Your task to perform on an android device: turn off priority inbox in the gmail app Image 0: 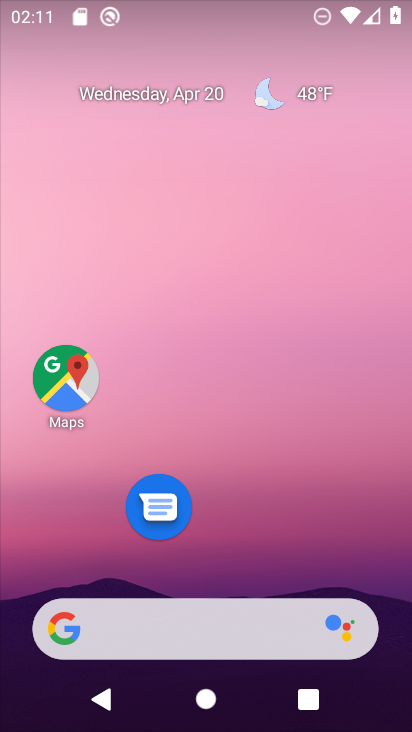
Step 0: drag from (205, 725) to (152, 129)
Your task to perform on an android device: turn off priority inbox in the gmail app Image 1: 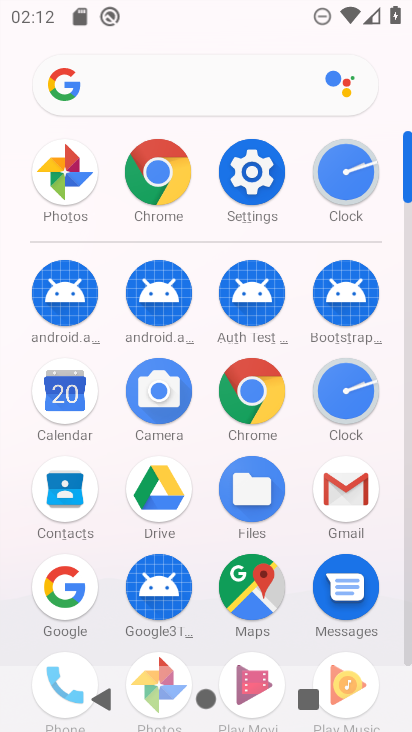
Step 1: click (347, 490)
Your task to perform on an android device: turn off priority inbox in the gmail app Image 2: 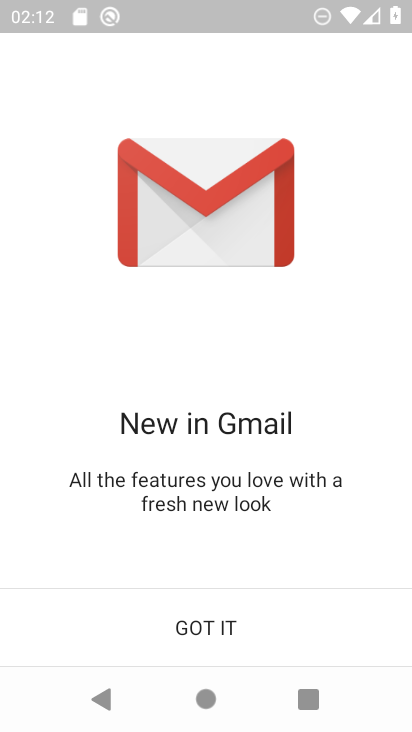
Step 2: click (189, 618)
Your task to perform on an android device: turn off priority inbox in the gmail app Image 3: 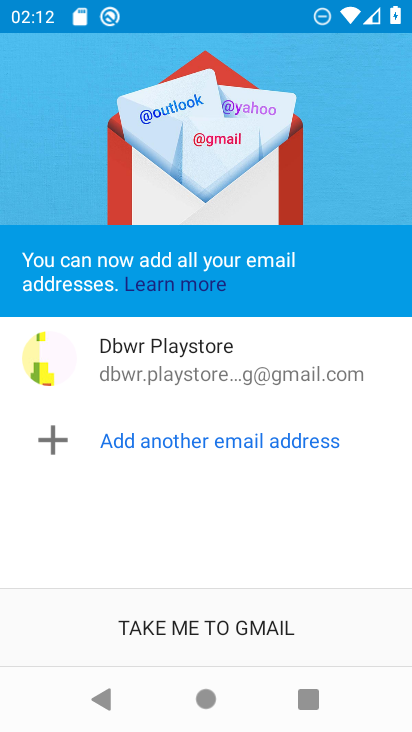
Step 3: click (200, 623)
Your task to perform on an android device: turn off priority inbox in the gmail app Image 4: 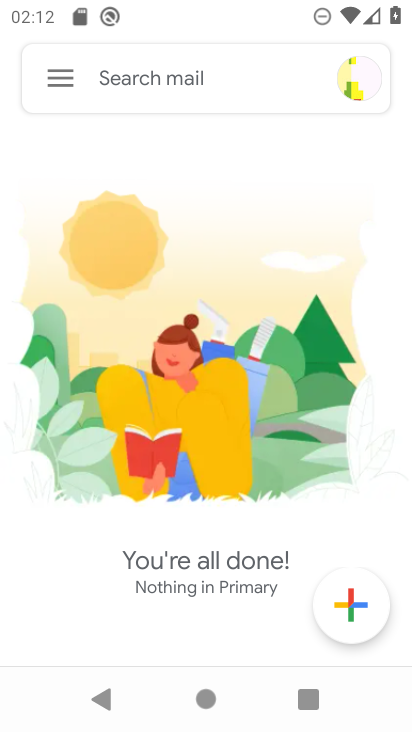
Step 4: click (60, 75)
Your task to perform on an android device: turn off priority inbox in the gmail app Image 5: 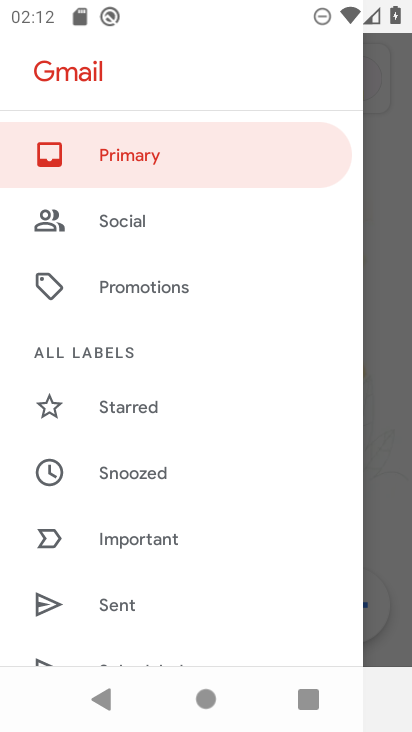
Step 5: drag from (165, 642) to (167, 194)
Your task to perform on an android device: turn off priority inbox in the gmail app Image 6: 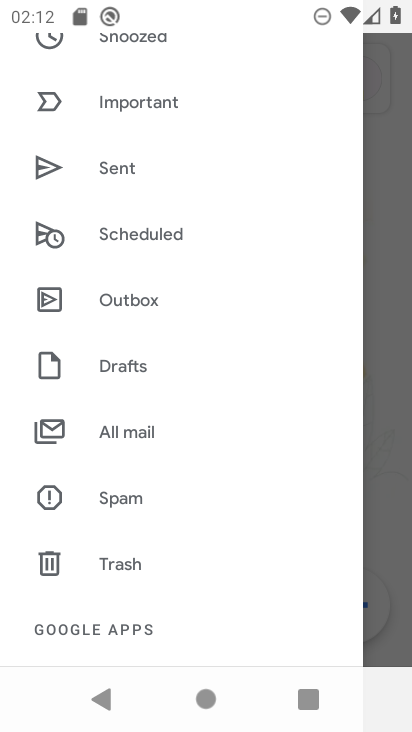
Step 6: drag from (148, 619) to (153, 183)
Your task to perform on an android device: turn off priority inbox in the gmail app Image 7: 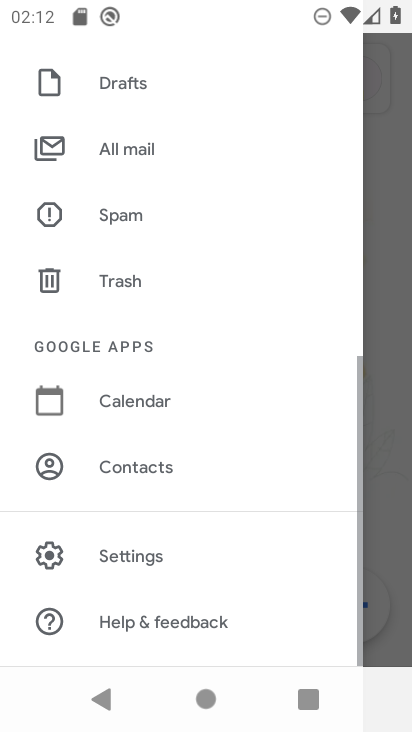
Step 7: click (140, 557)
Your task to perform on an android device: turn off priority inbox in the gmail app Image 8: 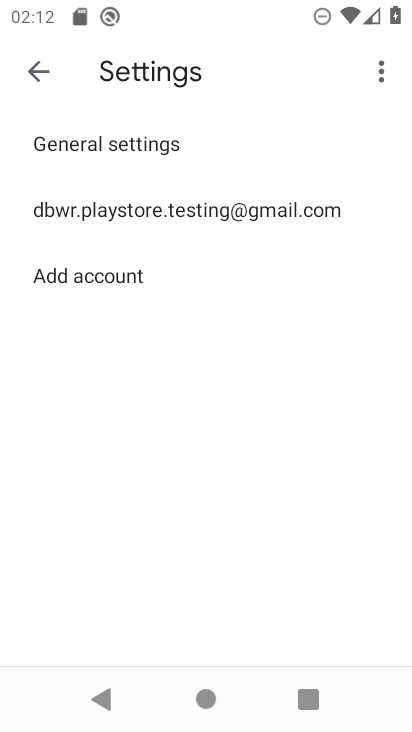
Step 8: click (183, 202)
Your task to perform on an android device: turn off priority inbox in the gmail app Image 9: 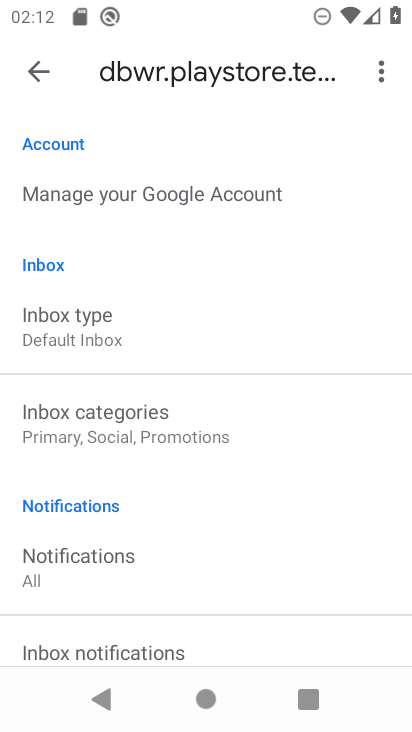
Step 9: task complete